Your task to perform on an android device: Open Youtube and go to the subscriptions tab Image 0: 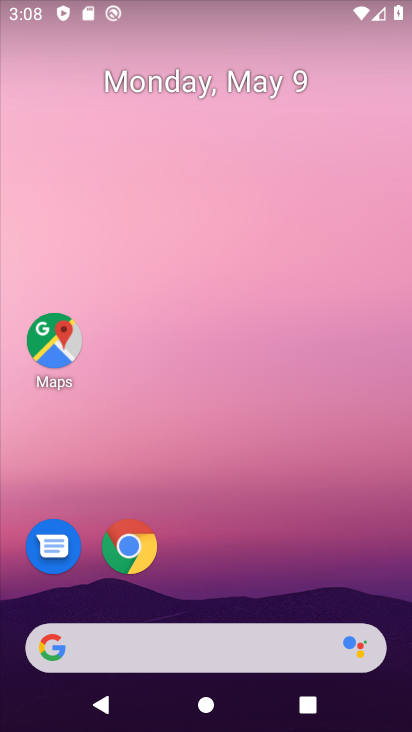
Step 0: drag from (306, 502) to (242, 157)
Your task to perform on an android device: Open Youtube and go to the subscriptions tab Image 1: 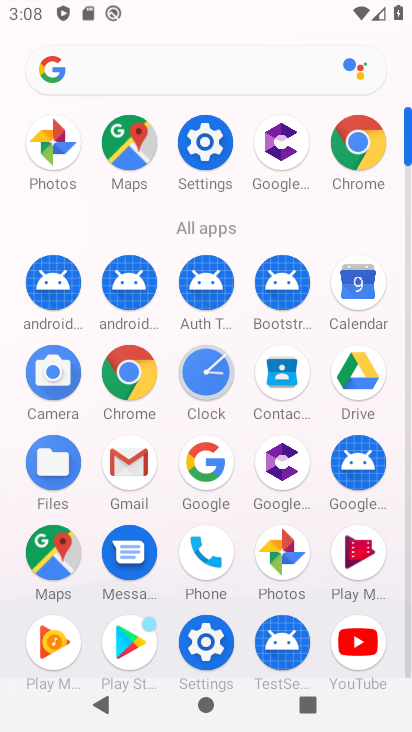
Step 1: click (349, 646)
Your task to perform on an android device: Open Youtube and go to the subscriptions tab Image 2: 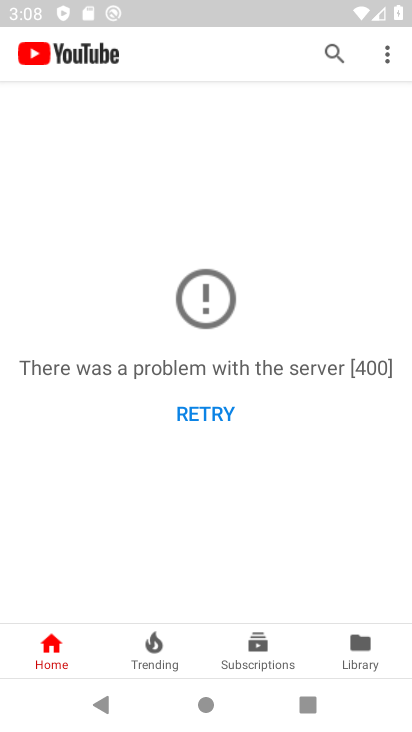
Step 2: click (259, 651)
Your task to perform on an android device: Open Youtube and go to the subscriptions tab Image 3: 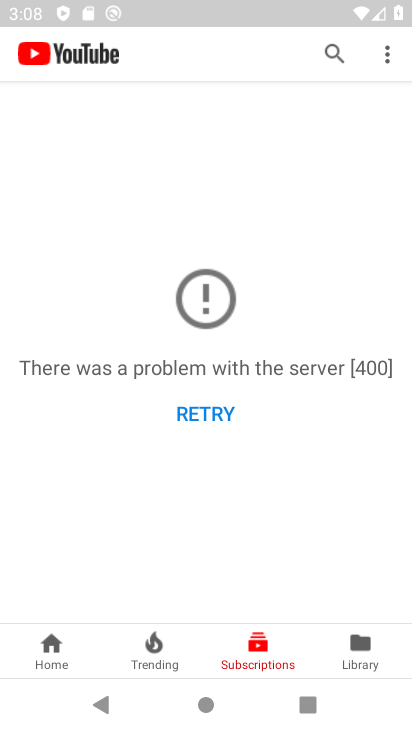
Step 3: task complete